Your task to perform on an android device: change text size in settings app Image 0: 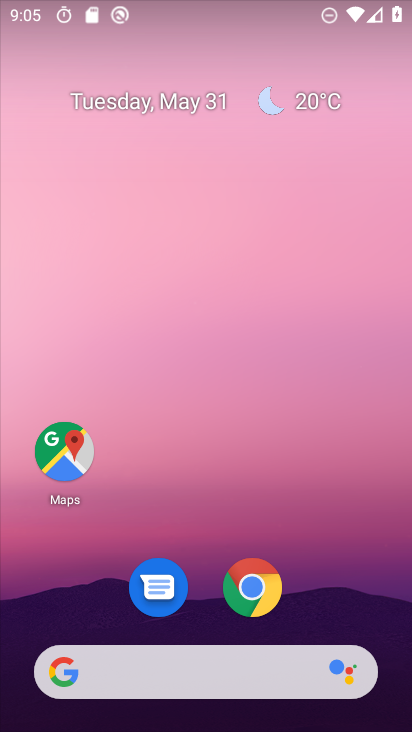
Step 0: drag from (198, 628) to (304, 48)
Your task to perform on an android device: change text size in settings app Image 1: 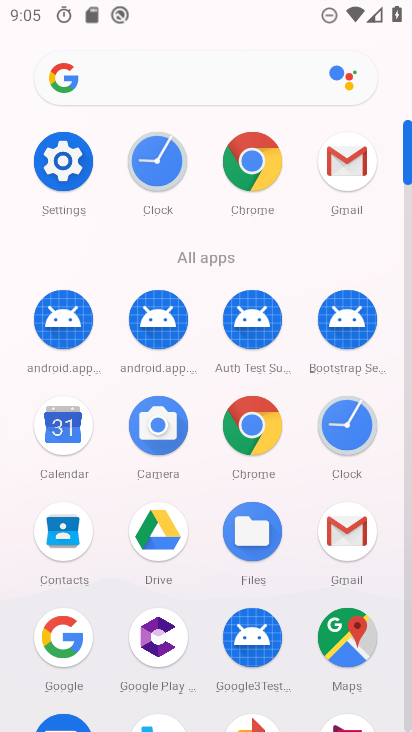
Step 1: click (69, 164)
Your task to perform on an android device: change text size in settings app Image 2: 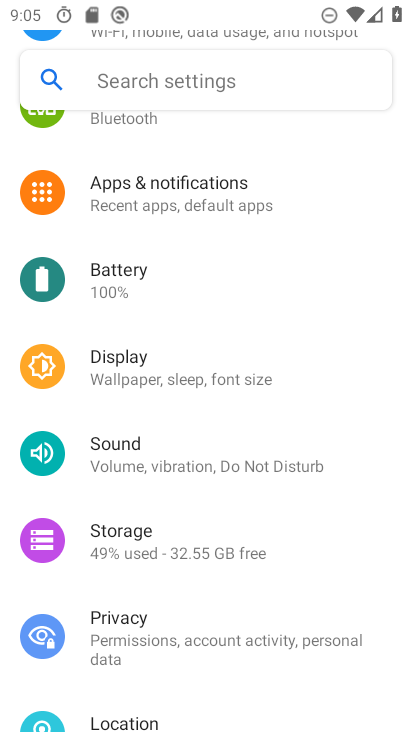
Step 2: click (148, 392)
Your task to perform on an android device: change text size in settings app Image 3: 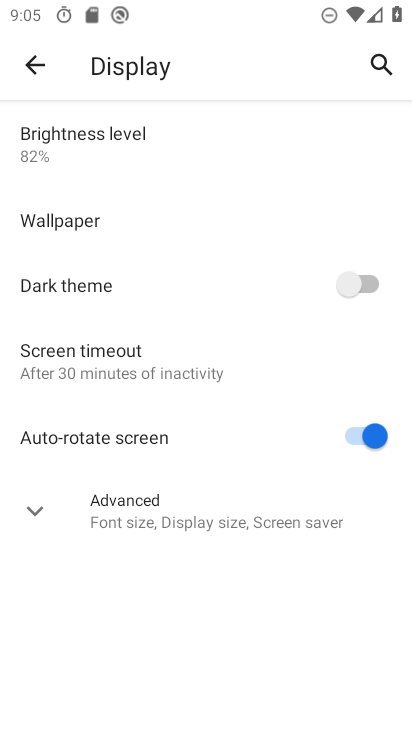
Step 3: click (218, 504)
Your task to perform on an android device: change text size in settings app Image 4: 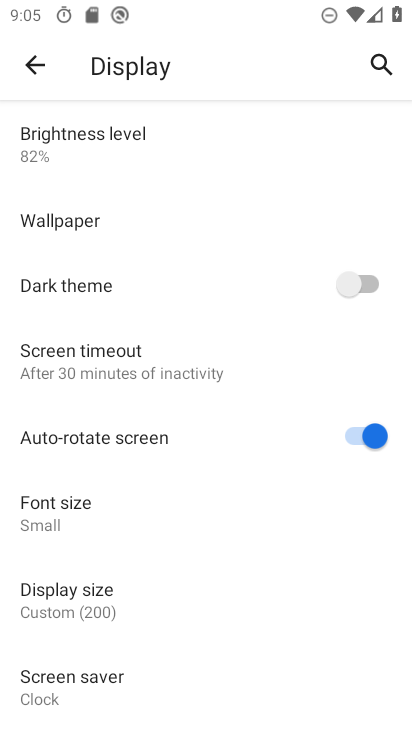
Step 4: click (218, 504)
Your task to perform on an android device: change text size in settings app Image 5: 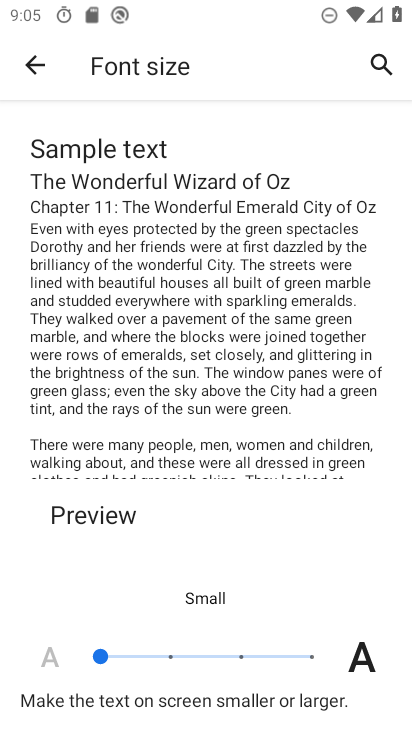
Step 5: click (162, 655)
Your task to perform on an android device: change text size in settings app Image 6: 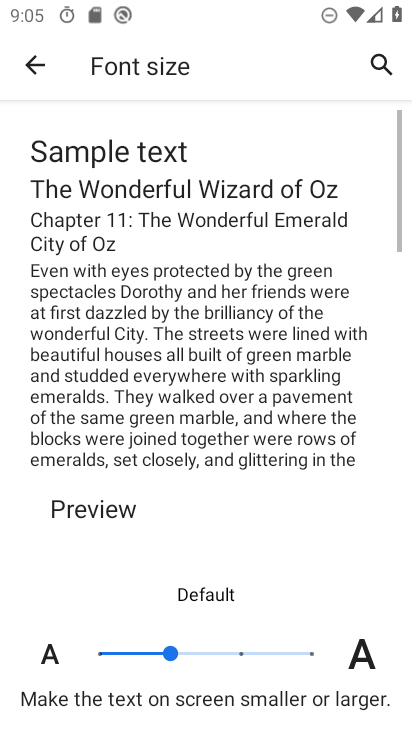
Step 6: task complete